Your task to perform on an android device: Go to network settings Image 0: 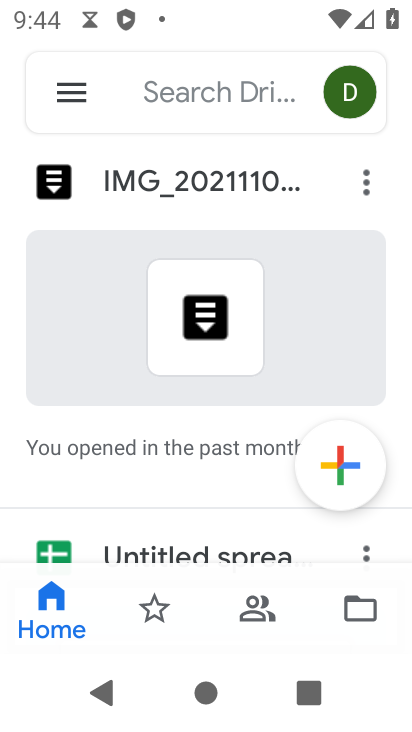
Step 0: press home button
Your task to perform on an android device: Go to network settings Image 1: 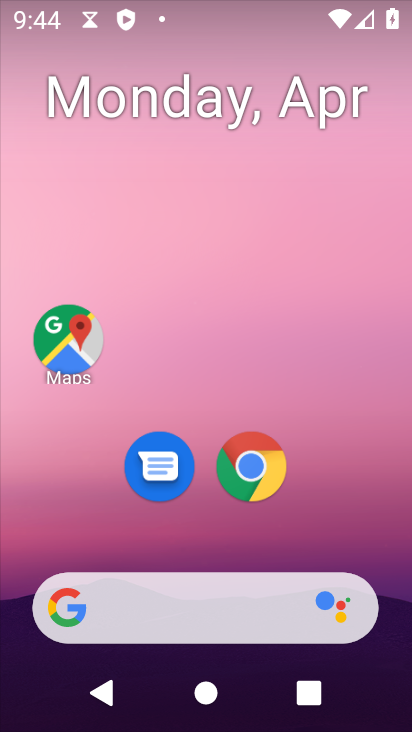
Step 1: drag from (200, 512) to (257, 59)
Your task to perform on an android device: Go to network settings Image 2: 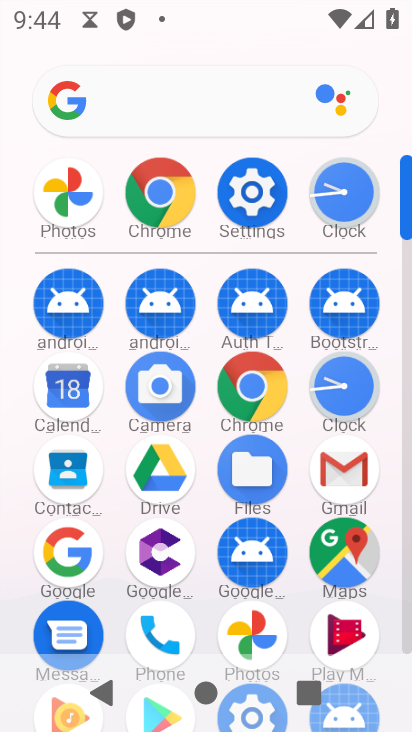
Step 2: click (262, 222)
Your task to perform on an android device: Go to network settings Image 3: 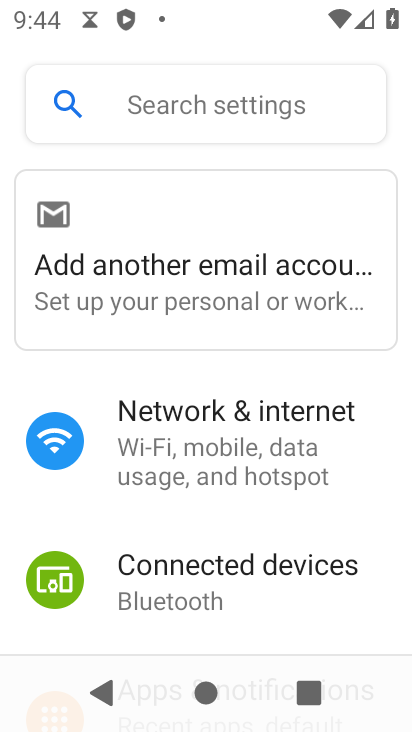
Step 3: click (237, 413)
Your task to perform on an android device: Go to network settings Image 4: 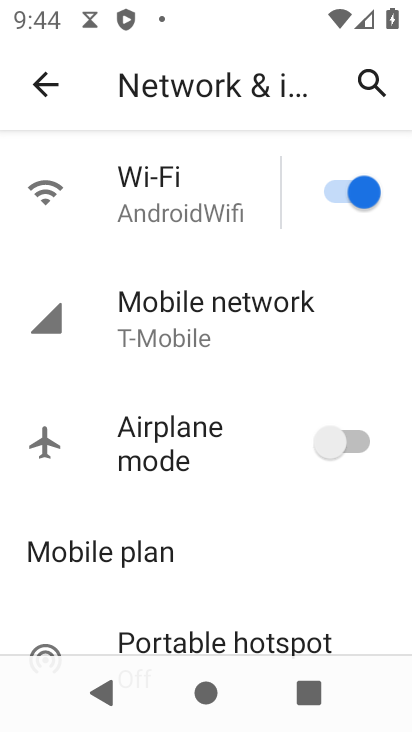
Step 4: click (286, 303)
Your task to perform on an android device: Go to network settings Image 5: 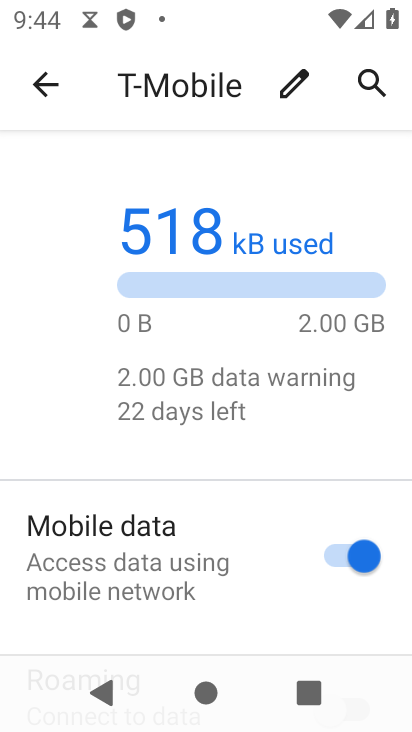
Step 5: task complete